Your task to perform on an android device: Go to Maps Image 0: 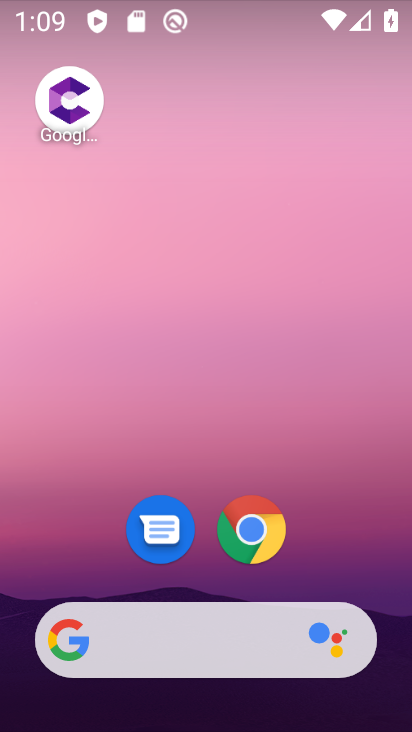
Step 0: drag from (309, 560) to (323, 3)
Your task to perform on an android device: Go to Maps Image 1: 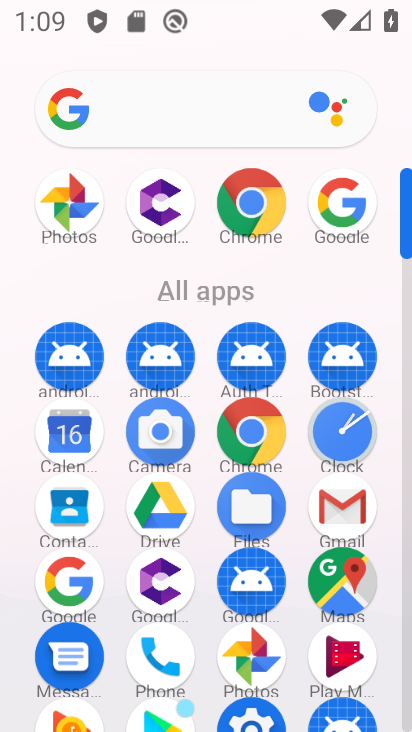
Step 1: click (339, 570)
Your task to perform on an android device: Go to Maps Image 2: 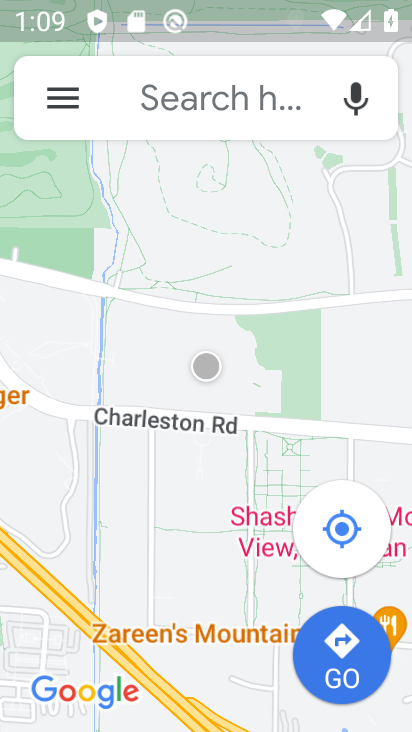
Step 2: task complete